Your task to perform on an android device: What time is it in Sydney? Image 0: 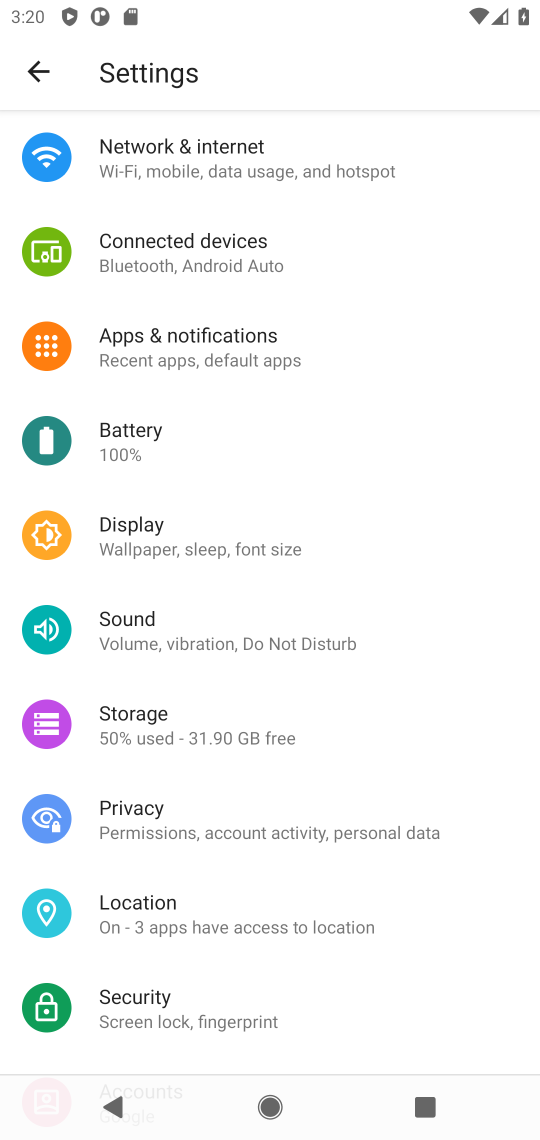
Step 0: press back button
Your task to perform on an android device: What time is it in Sydney? Image 1: 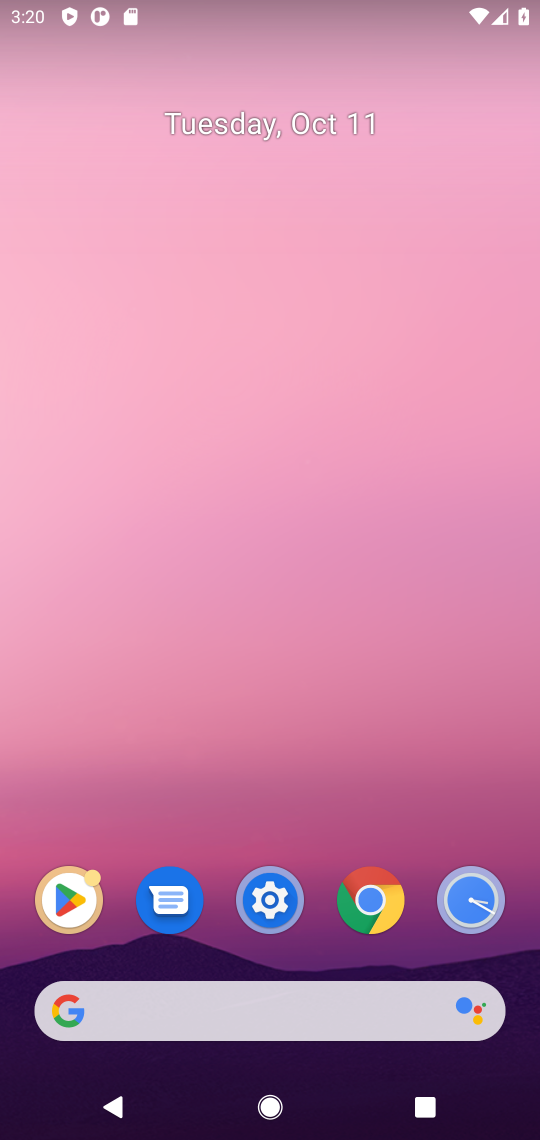
Step 1: click (235, 1011)
Your task to perform on an android device: What time is it in Sydney? Image 2: 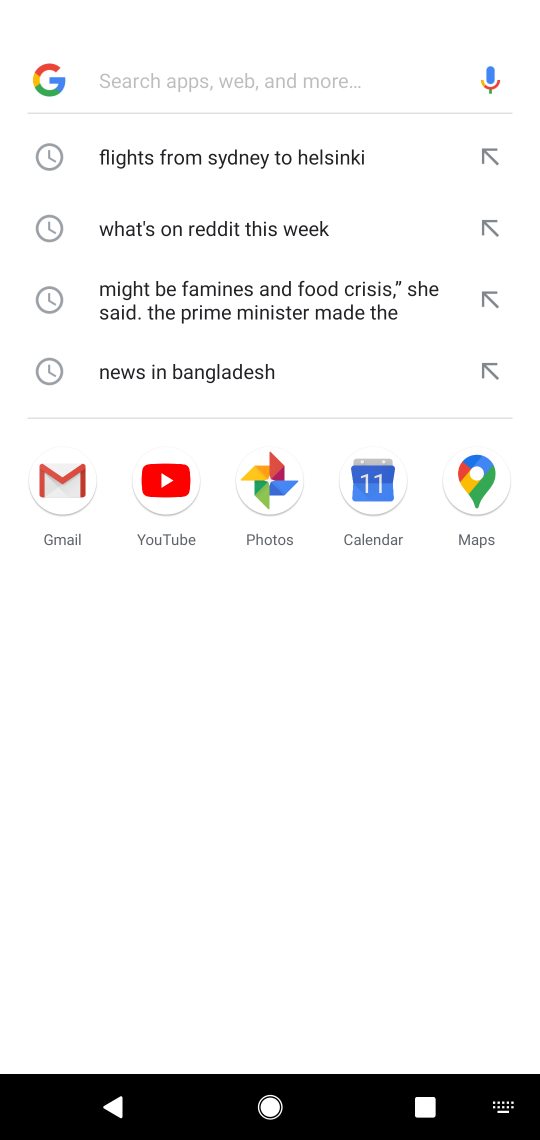
Step 2: type "What time is it in Sydney?"
Your task to perform on an android device: What time is it in Sydney? Image 3: 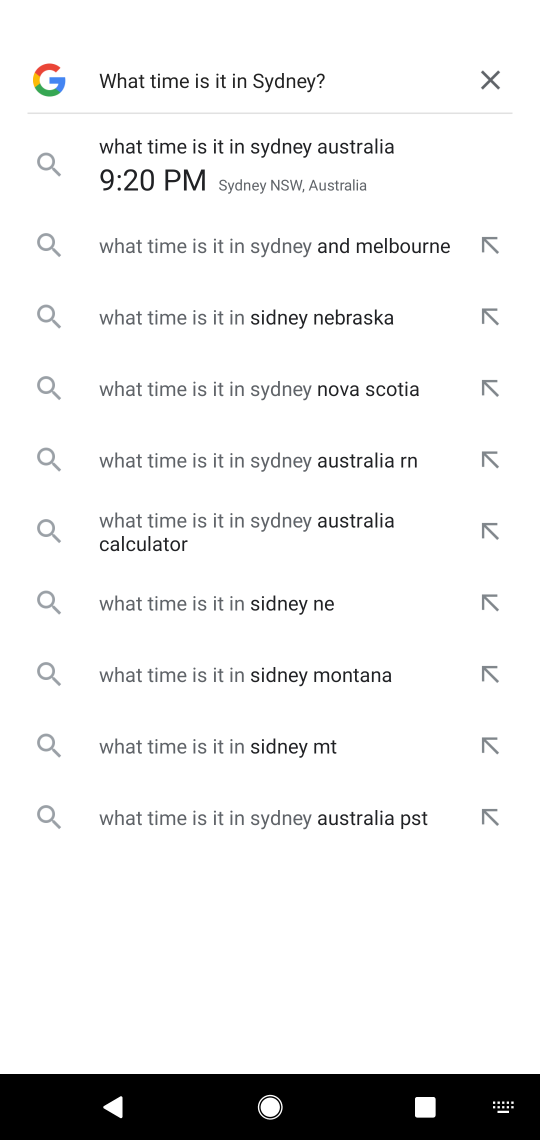
Step 3: type ""
Your task to perform on an android device: What time is it in Sydney? Image 4: 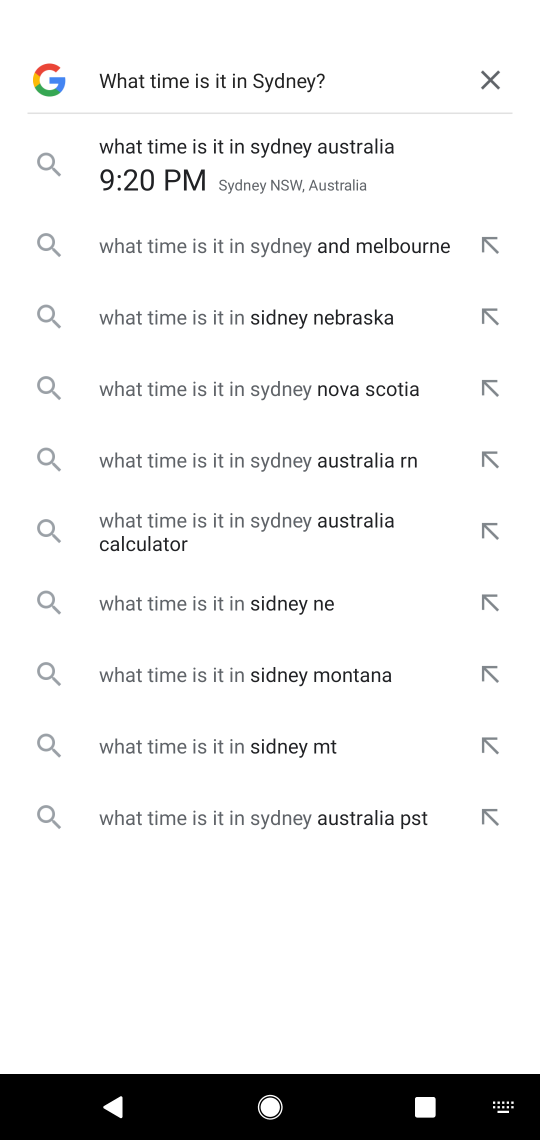
Step 4: click (311, 135)
Your task to perform on an android device: What time is it in Sydney? Image 5: 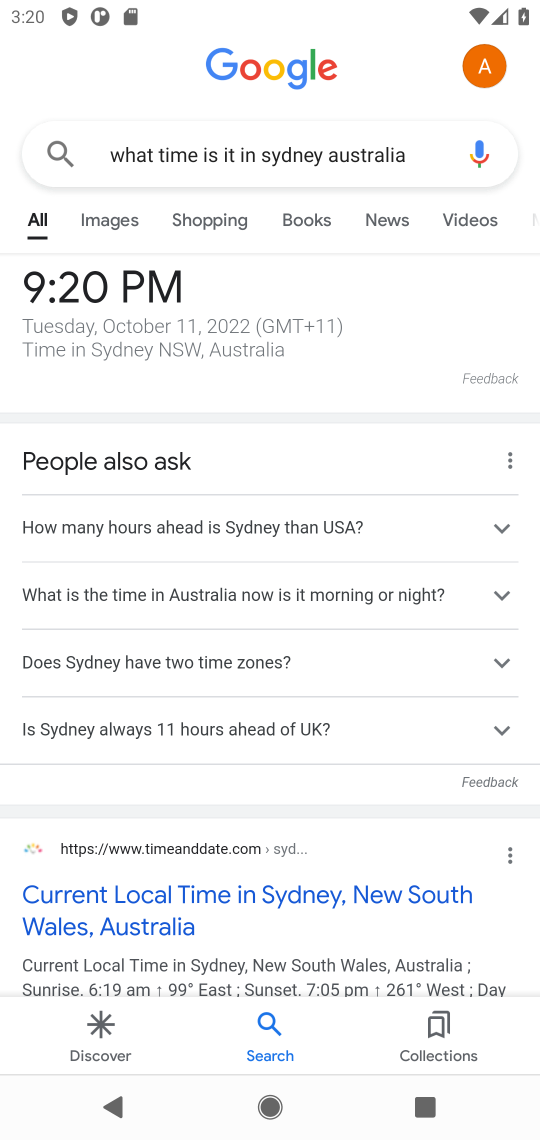
Step 5: click (343, 633)
Your task to perform on an android device: What time is it in Sydney? Image 6: 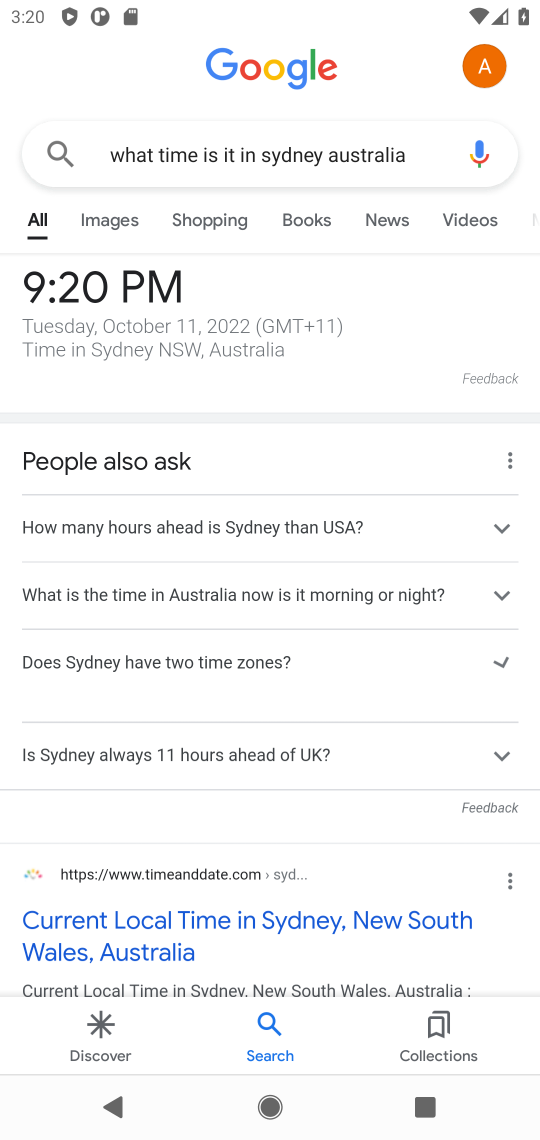
Step 6: click (144, 345)
Your task to perform on an android device: What time is it in Sydney? Image 7: 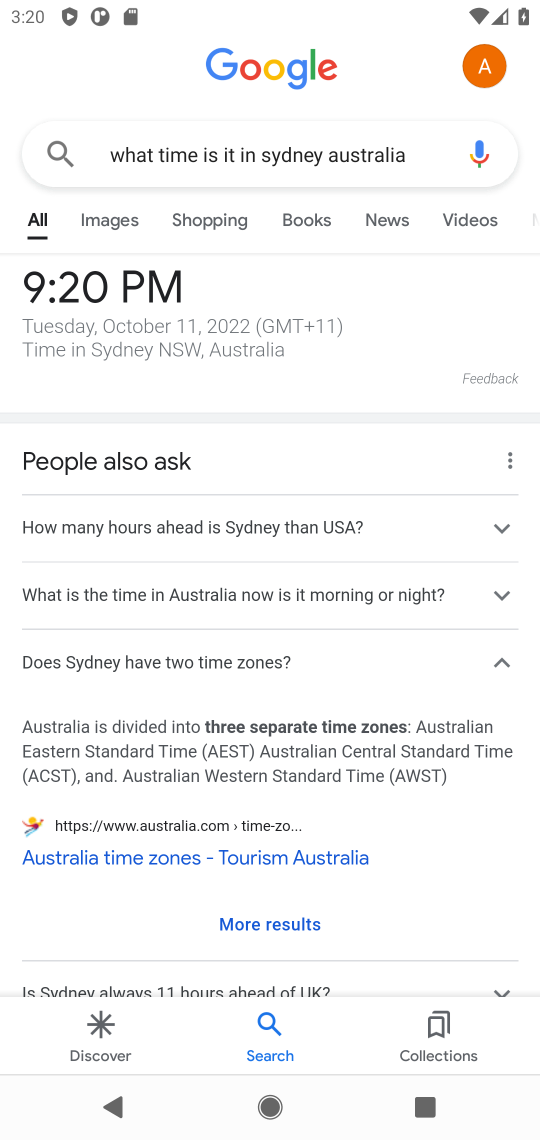
Step 7: drag from (247, 815) to (307, 464)
Your task to perform on an android device: What time is it in Sydney? Image 8: 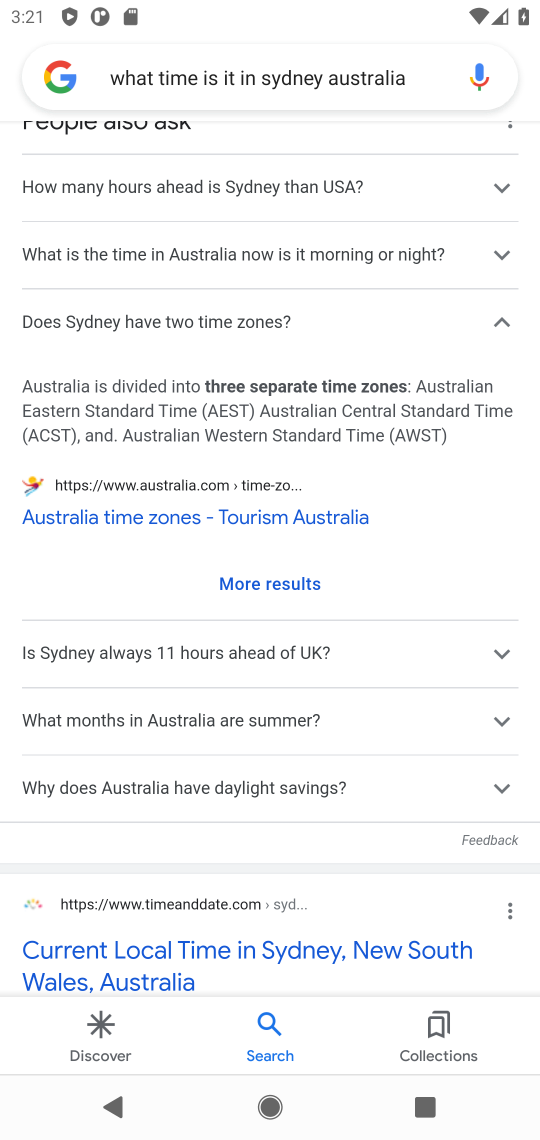
Step 8: click (498, 665)
Your task to perform on an android device: What time is it in Sydney? Image 9: 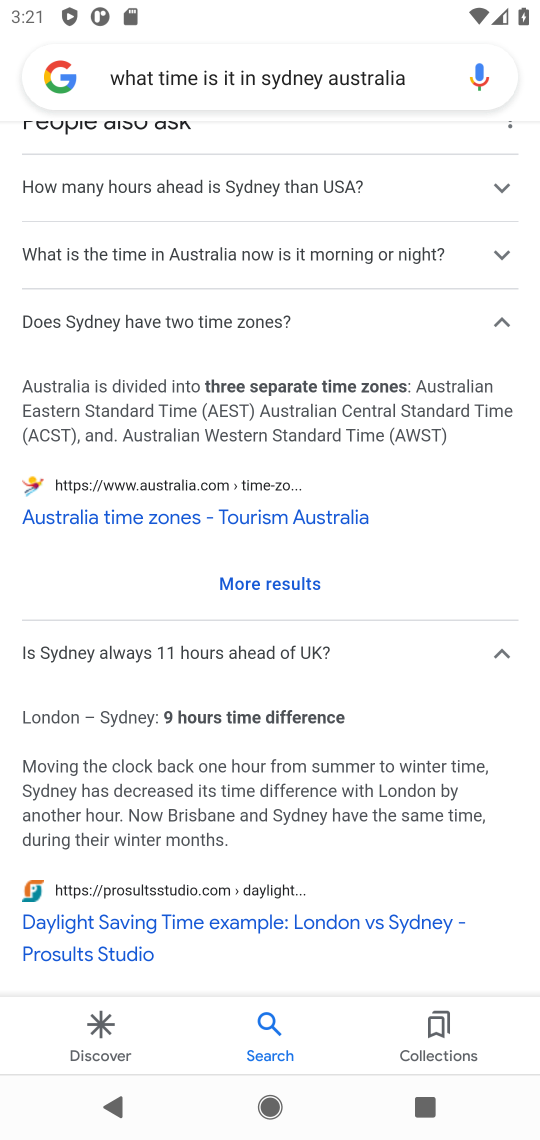
Step 9: click (497, 667)
Your task to perform on an android device: What time is it in Sydney? Image 10: 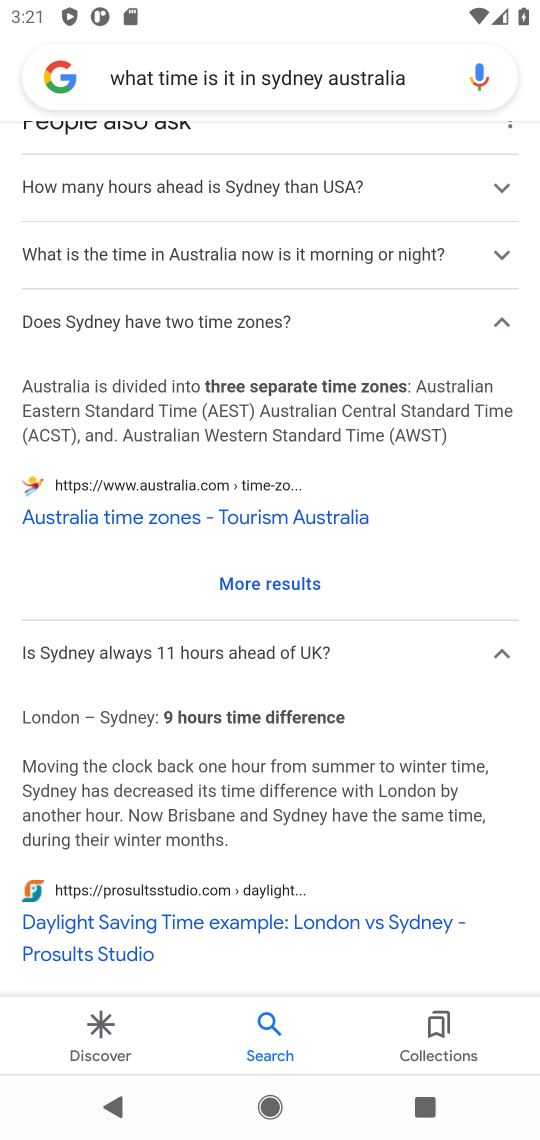
Step 10: click (497, 667)
Your task to perform on an android device: What time is it in Sydney? Image 11: 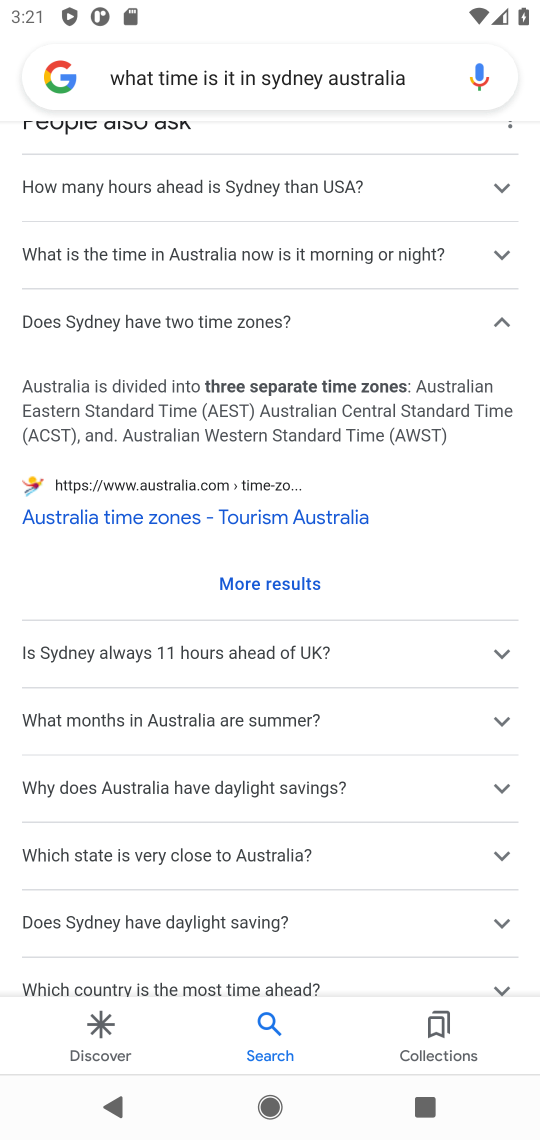
Step 11: click (506, 642)
Your task to perform on an android device: What time is it in Sydney? Image 12: 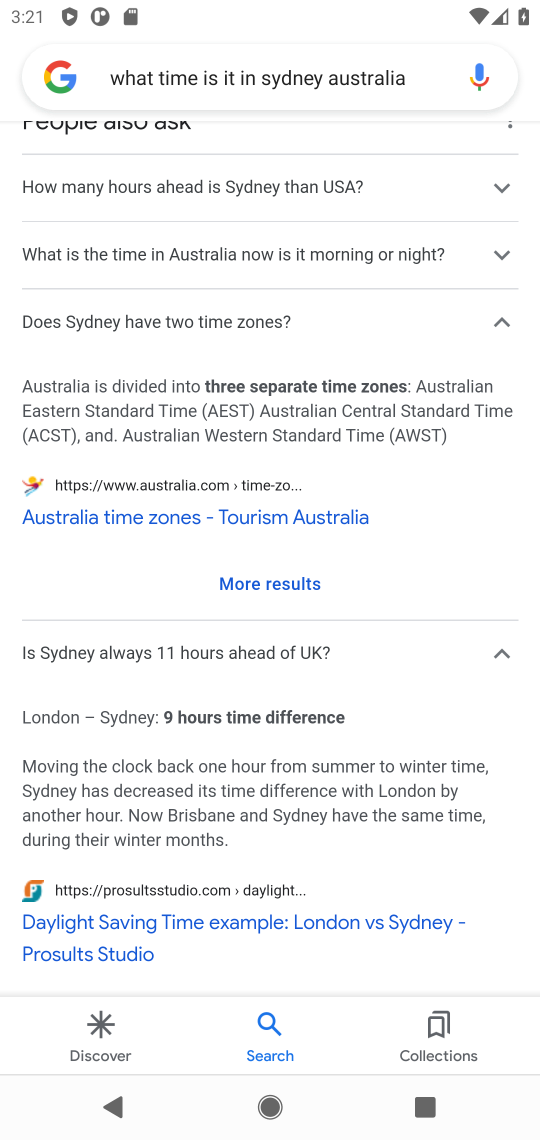
Step 12: click (506, 642)
Your task to perform on an android device: What time is it in Sydney? Image 13: 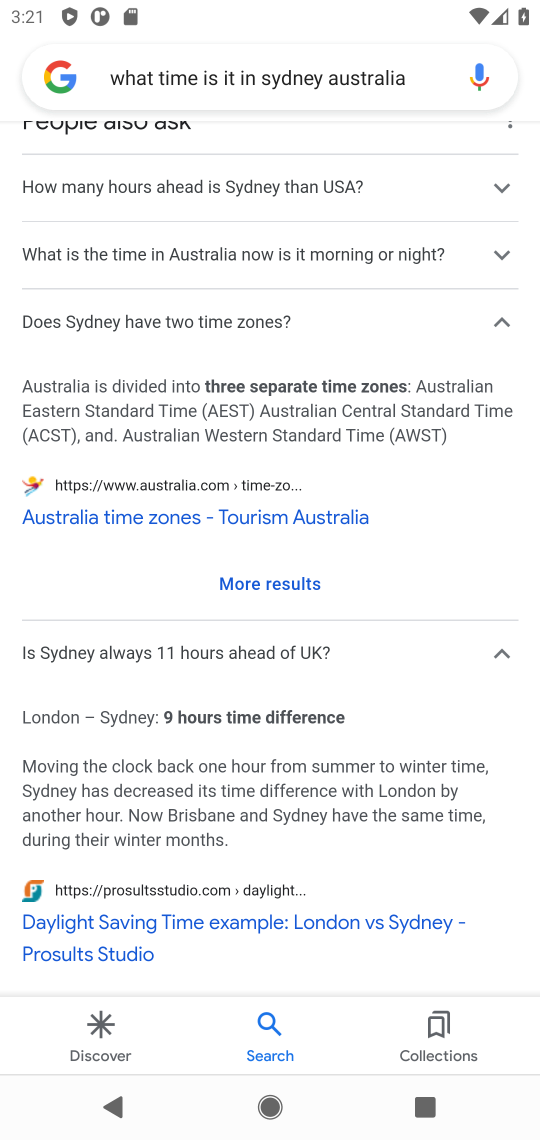
Step 13: click (506, 642)
Your task to perform on an android device: What time is it in Sydney? Image 14: 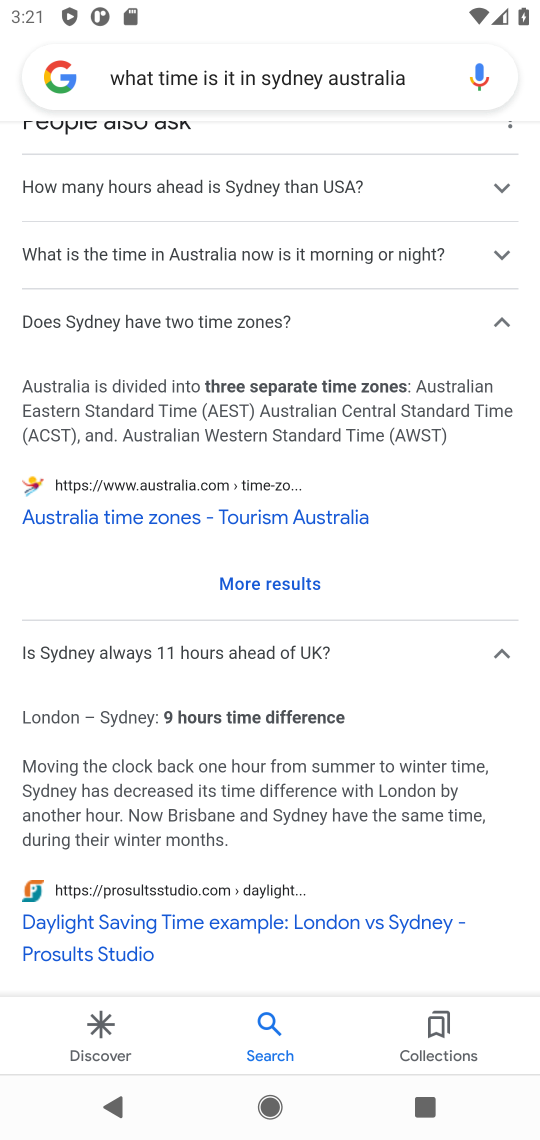
Step 14: click (506, 642)
Your task to perform on an android device: What time is it in Sydney? Image 15: 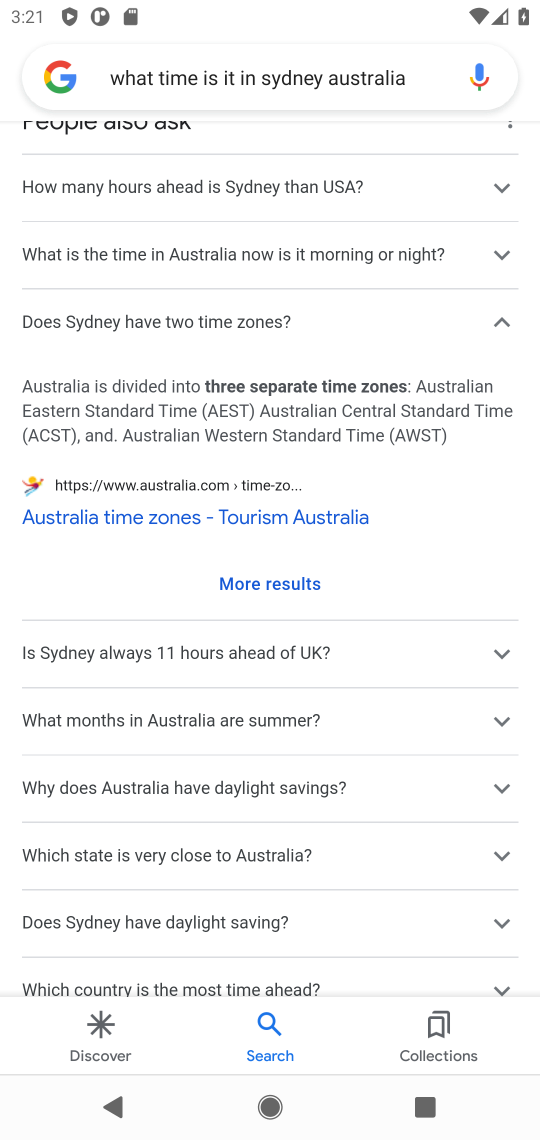
Step 15: click (506, 642)
Your task to perform on an android device: What time is it in Sydney? Image 16: 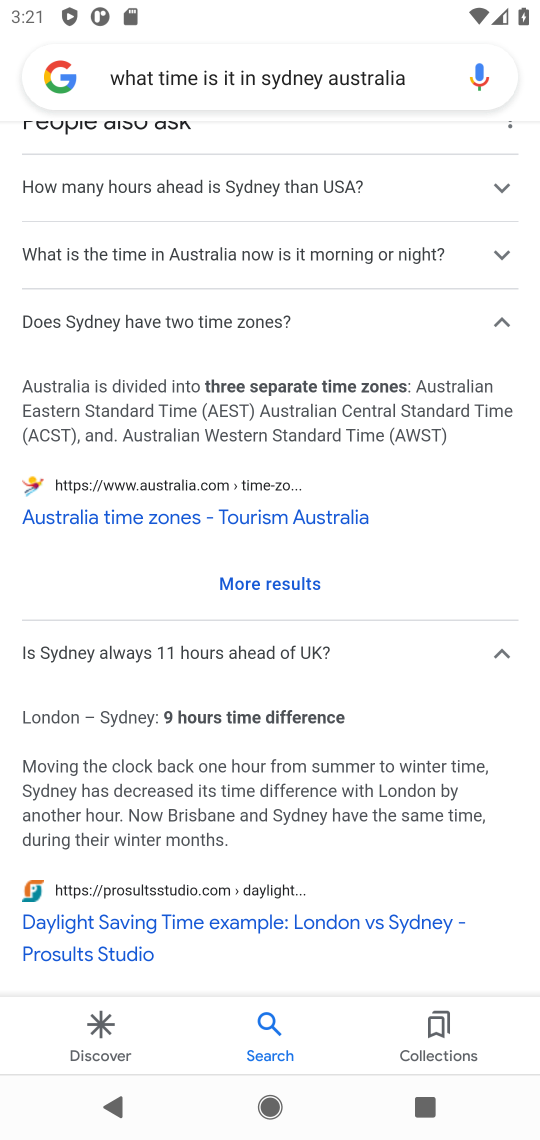
Step 16: click (506, 642)
Your task to perform on an android device: What time is it in Sydney? Image 17: 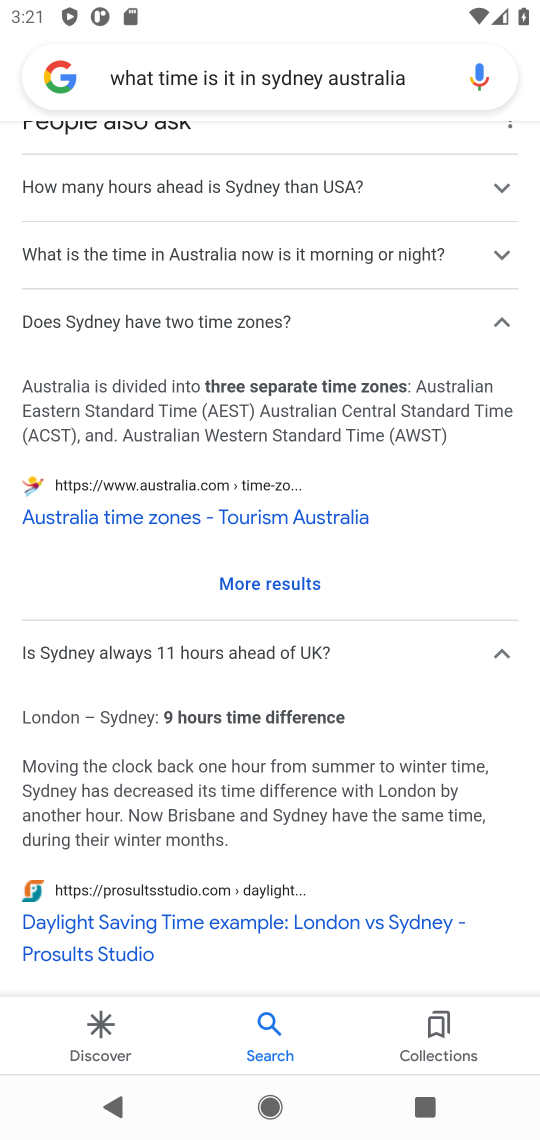
Step 17: click (506, 642)
Your task to perform on an android device: What time is it in Sydney? Image 18: 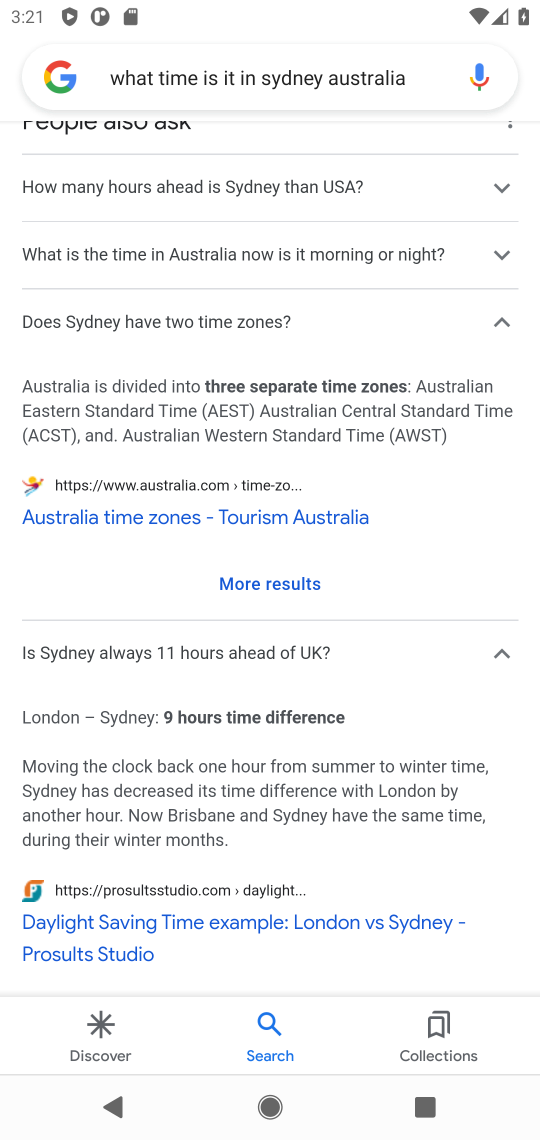
Step 18: click (506, 642)
Your task to perform on an android device: What time is it in Sydney? Image 19: 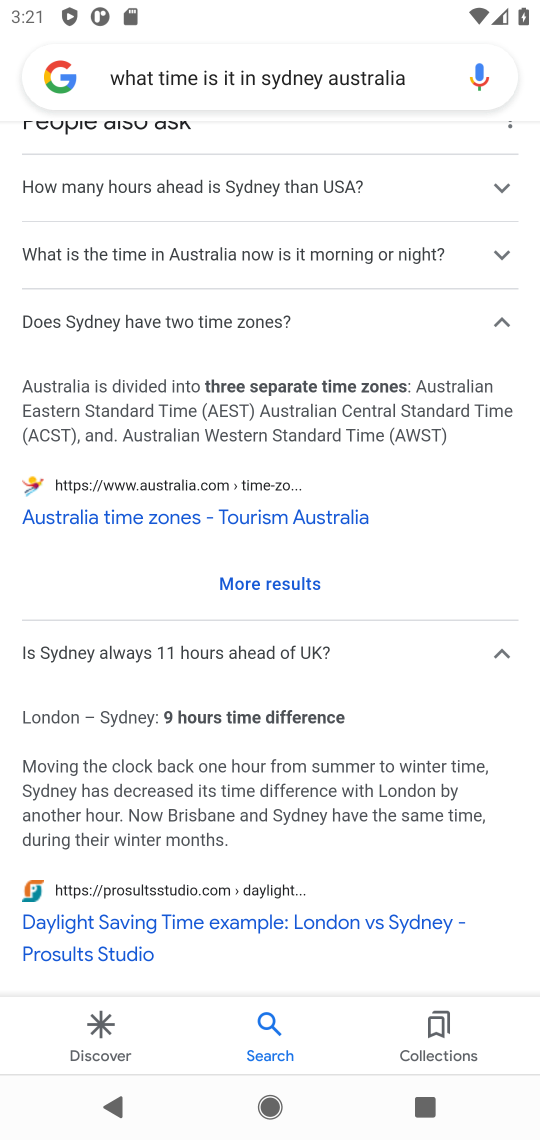
Step 19: click (506, 642)
Your task to perform on an android device: What time is it in Sydney? Image 20: 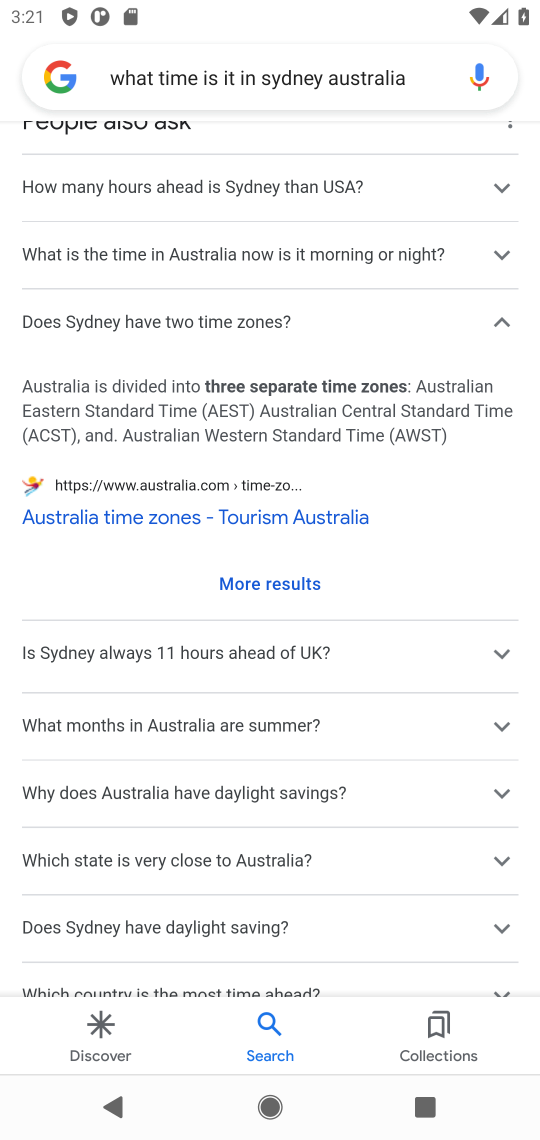
Step 20: click (506, 642)
Your task to perform on an android device: What time is it in Sydney? Image 21: 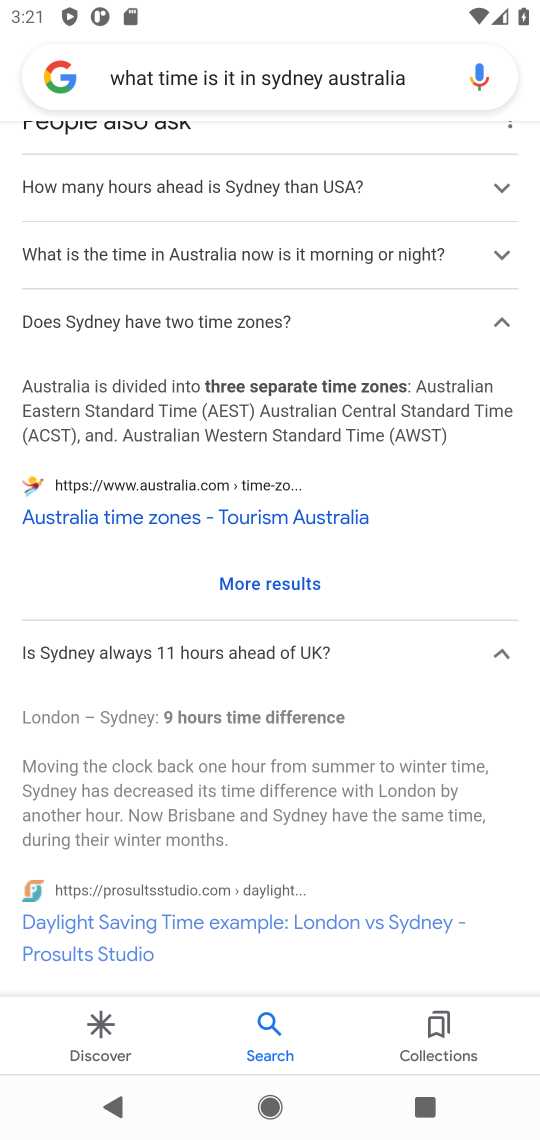
Step 21: click (506, 642)
Your task to perform on an android device: What time is it in Sydney? Image 22: 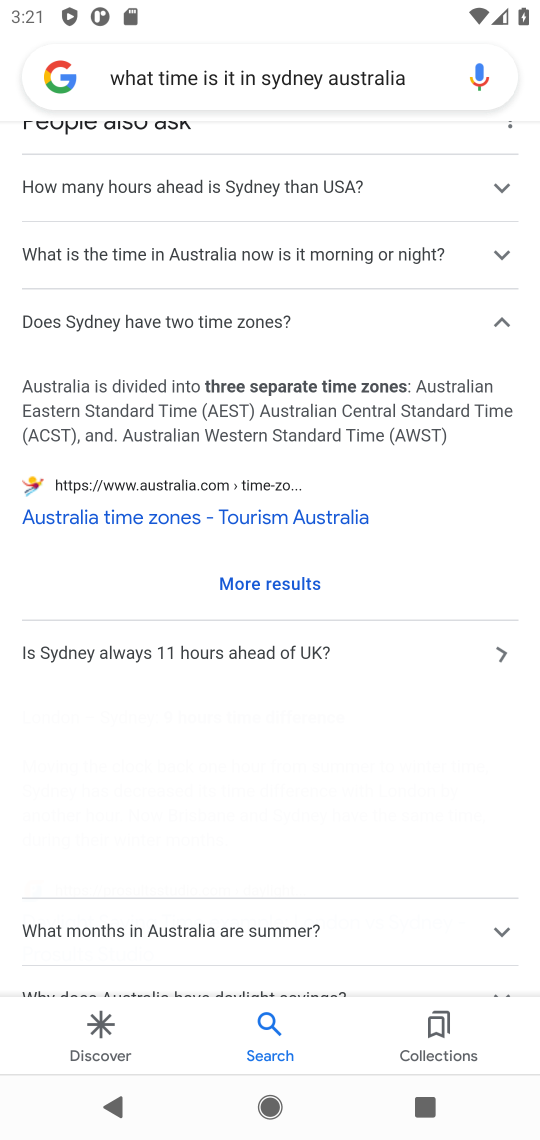
Step 22: click (506, 642)
Your task to perform on an android device: What time is it in Sydney? Image 23: 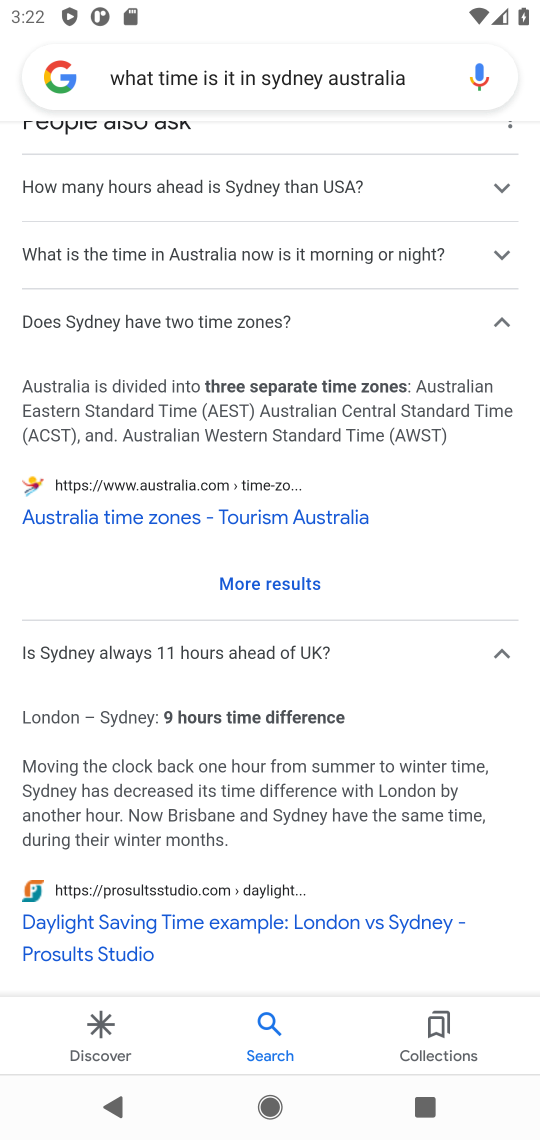
Step 23: click (506, 642)
Your task to perform on an android device: What time is it in Sydney? Image 24: 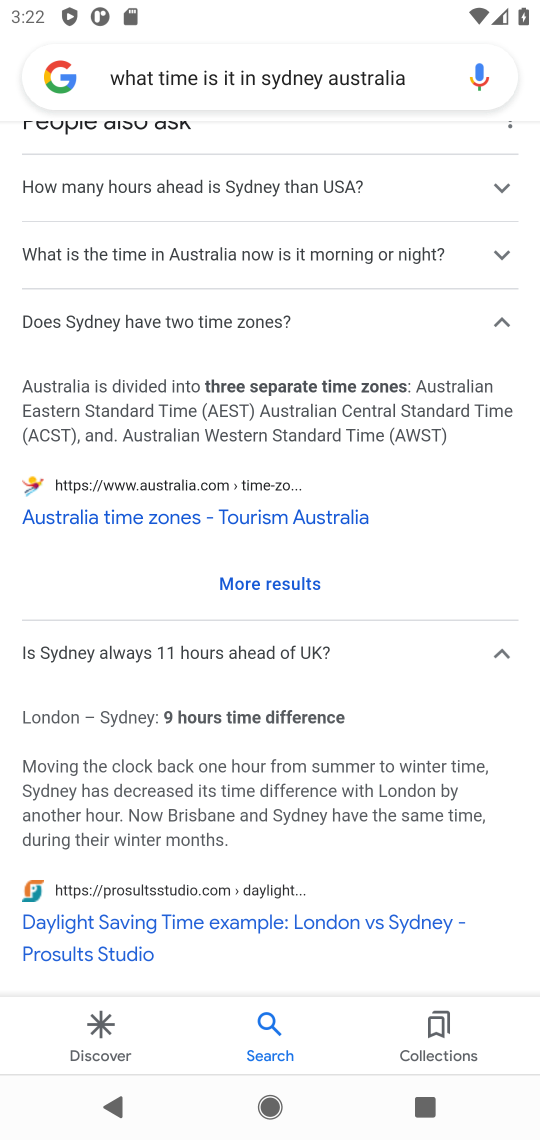
Step 24: click (506, 642)
Your task to perform on an android device: What time is it in Sydney? Image 25: 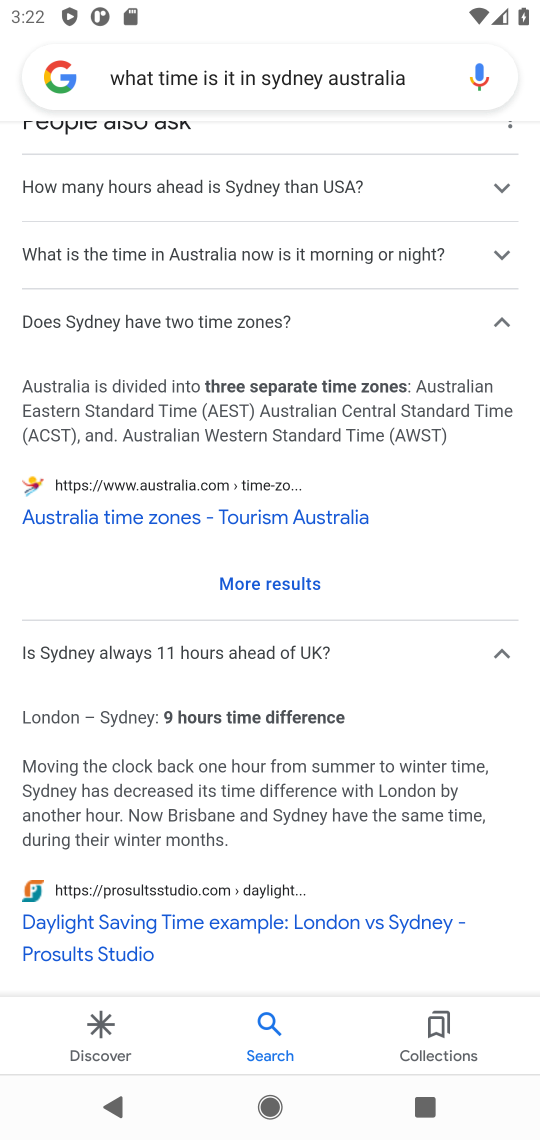
Step 25: click (506, 642)
Your task to perform on an android device: What time is it in Sydney? Image 26: 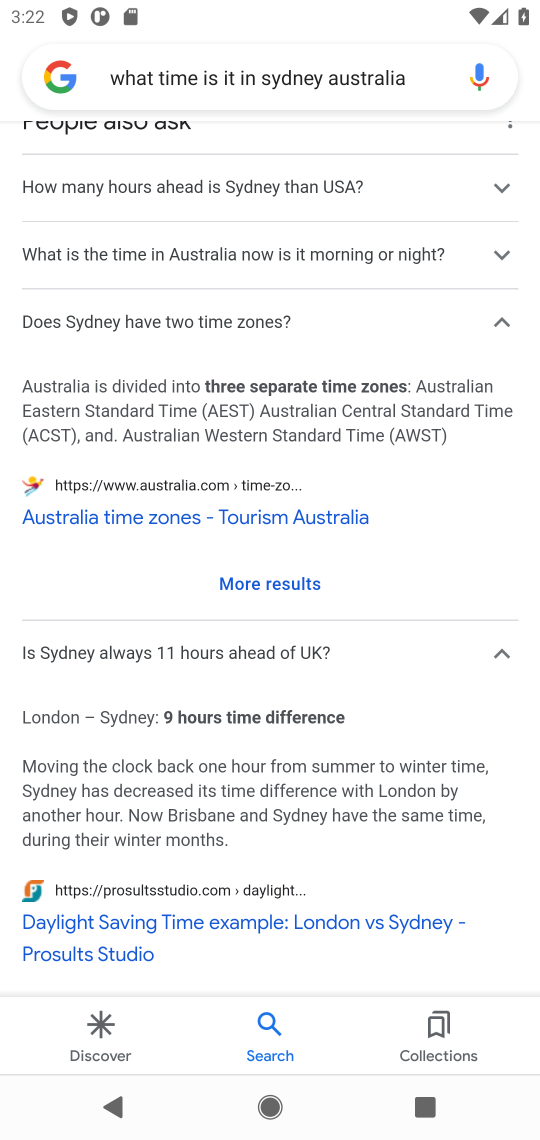
Step 26: click (506, 642)
Your task to perform on an android device: What time is it in Sydney? Image 27: 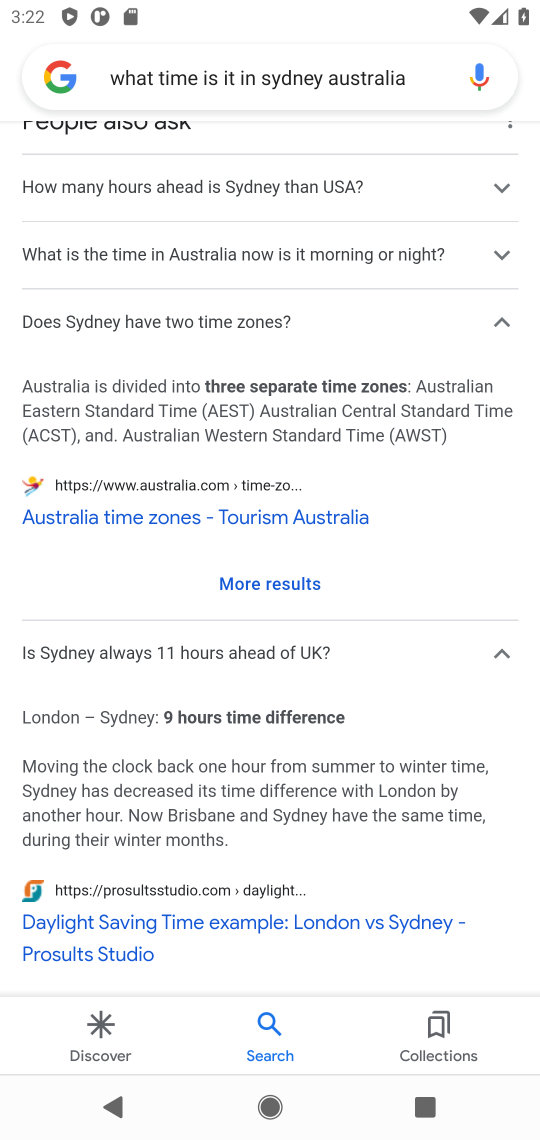
Step 27: click (506, 642)
Your task to perform on an android device: What time is it in Sydney? Image 28: 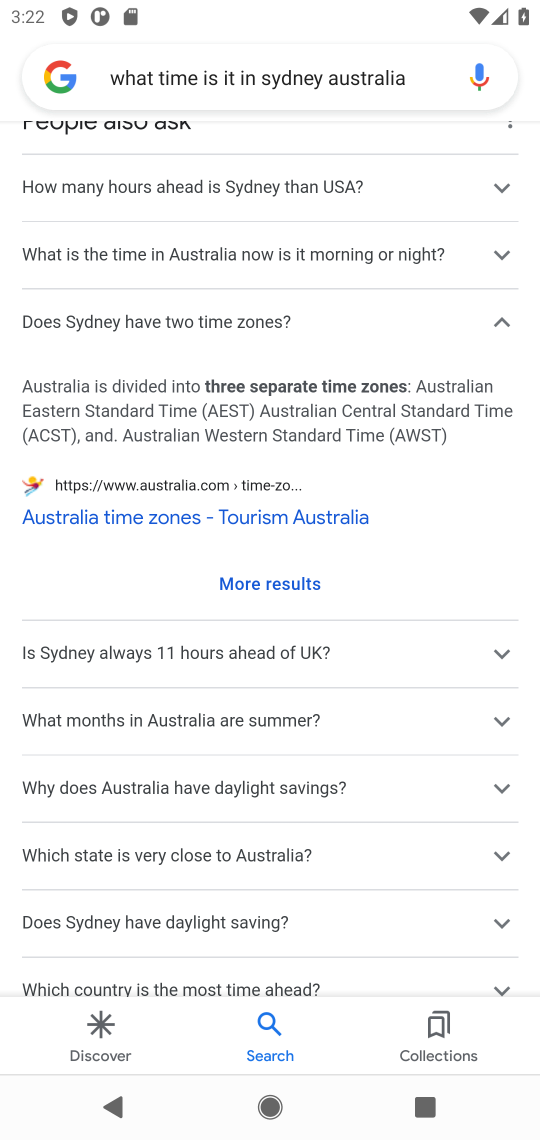
Step 28: click (511, 640)
Your task to perform on an android device: What time is it in Sydney? Image 29: 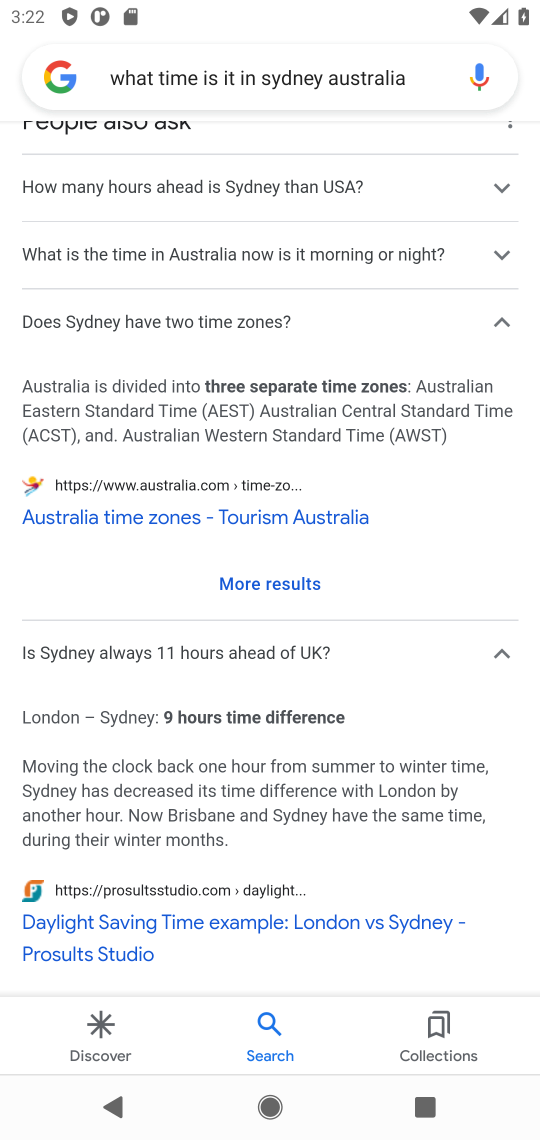
Step 29: click (511, 640)
Your task to perform on an android device: What time is it in Sydney? Image 30: 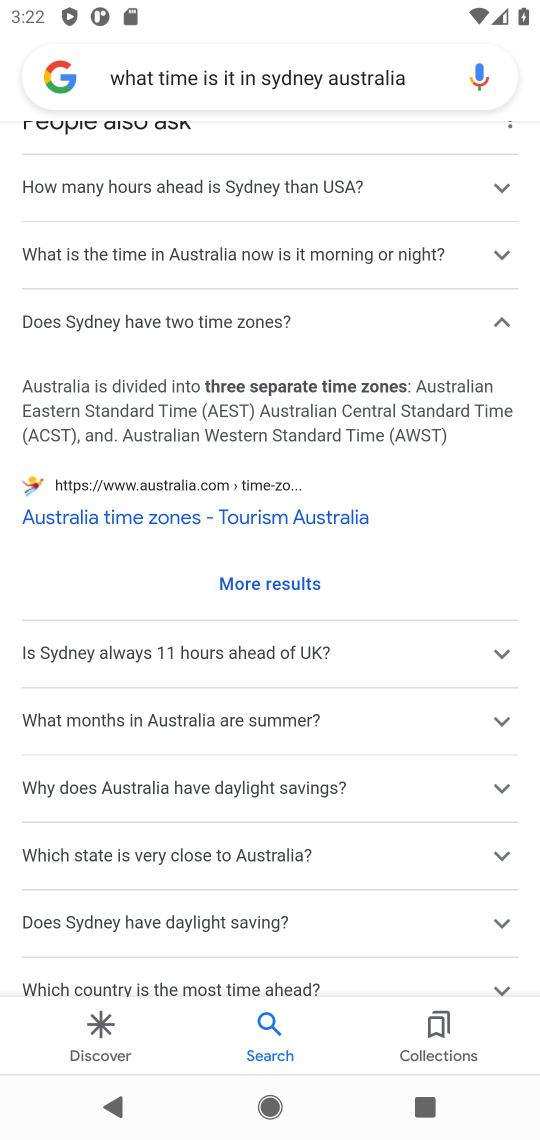
Step 30: click (511, 640)
Your task to perform on an android device: What time is it in Sydney? Image 31: 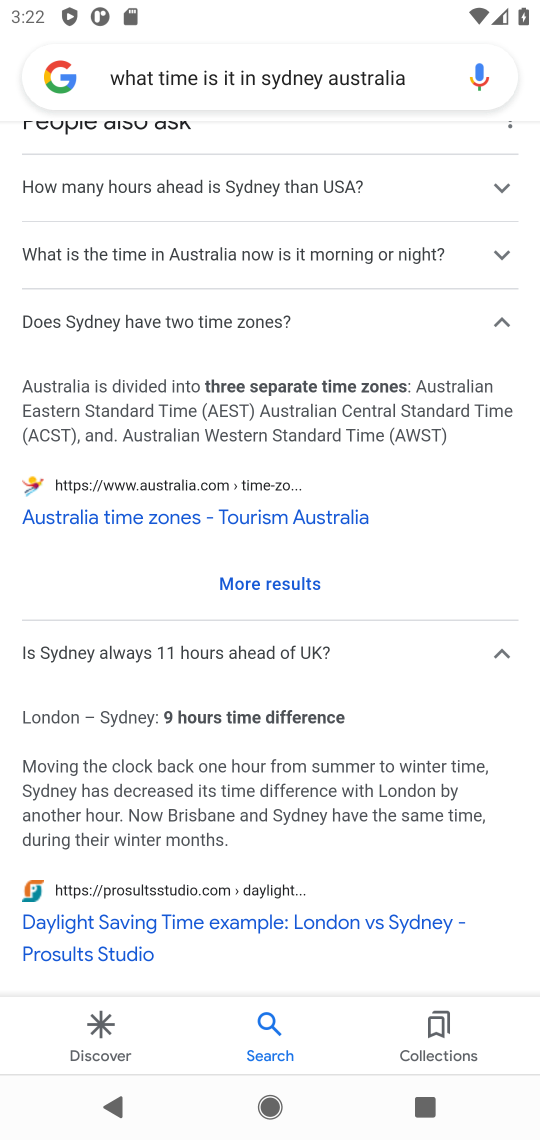
Step 31: click (511, 640)
Your task to perform on an android device: What time is it in Sydney? Image 32: 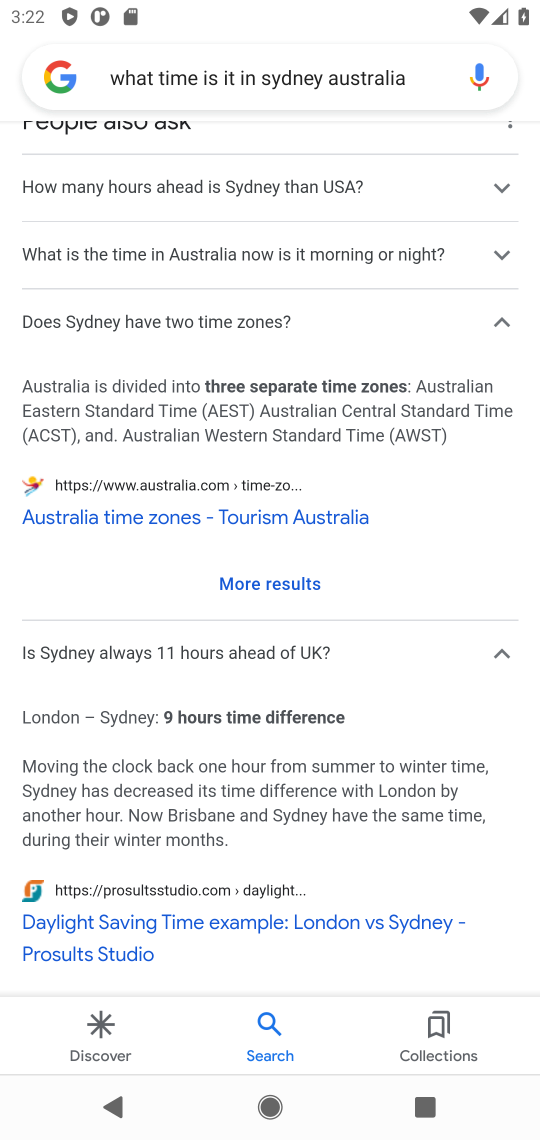
Step 32: click (511, 640)
Your task to perform on an android device: What time is it in Sydney? Image 33: 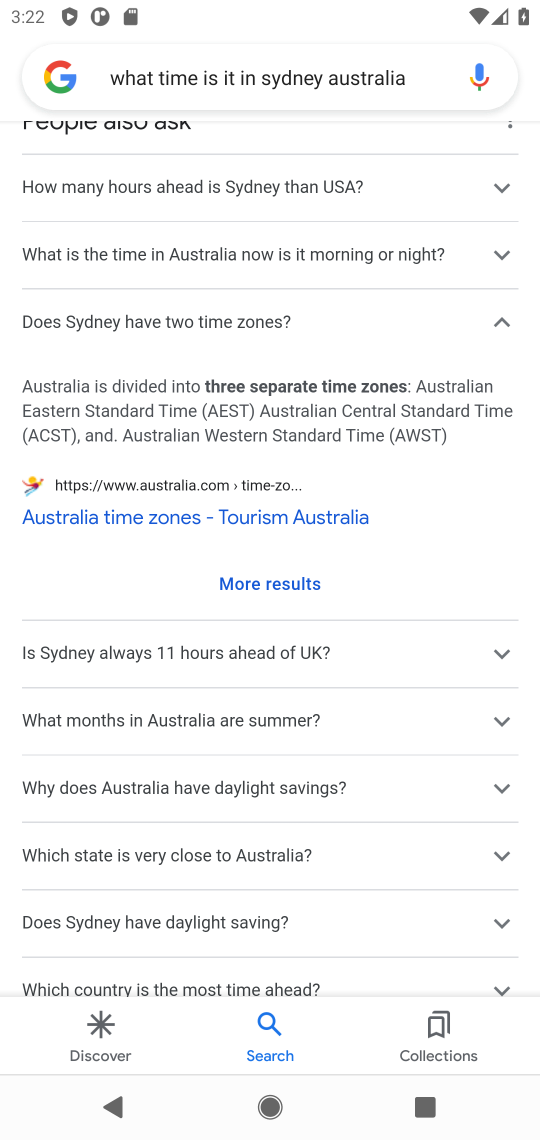
Step 33: click (511, 640)
Your task to perform on an android device: What time is it in Sydney? Image 34: 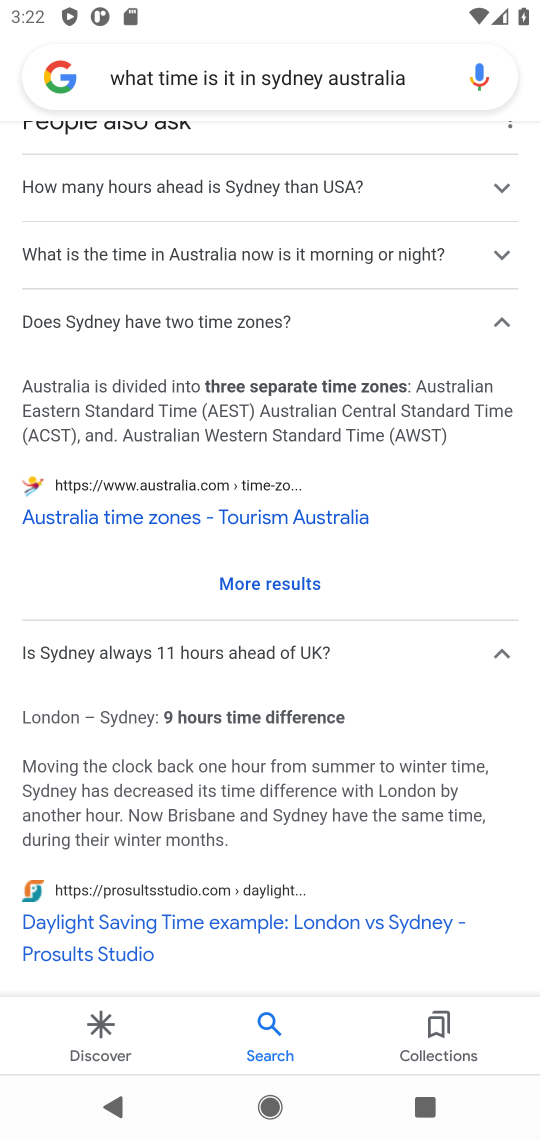
Step 34: click (511, 640)
Your task to perform on an android device: What time is it in Sydney? Image 35: 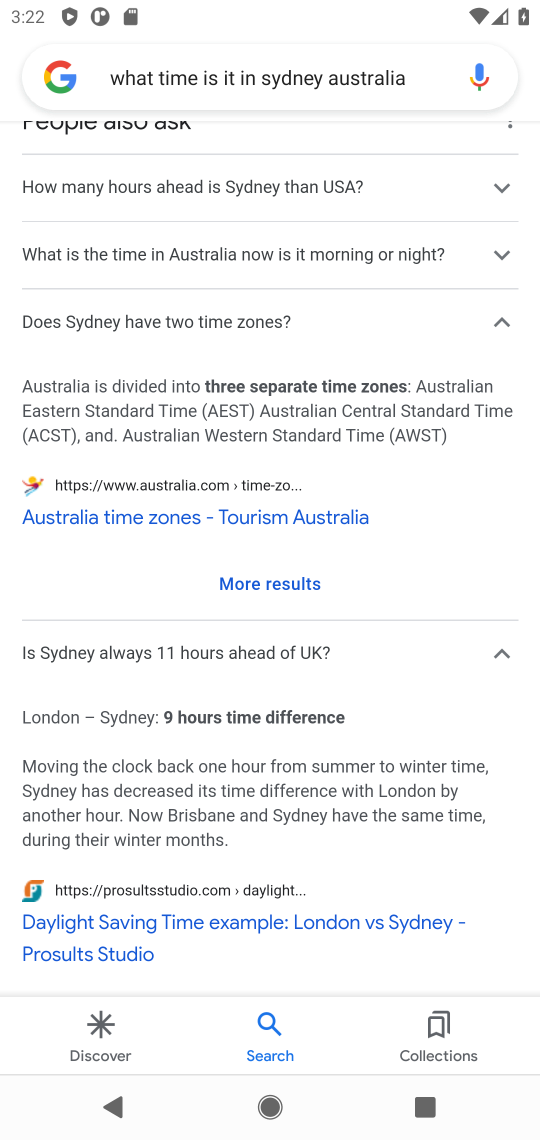
Step 35: click (511, 640)
Your task to perform on an android device: What time is it in Sydney? Image 36: 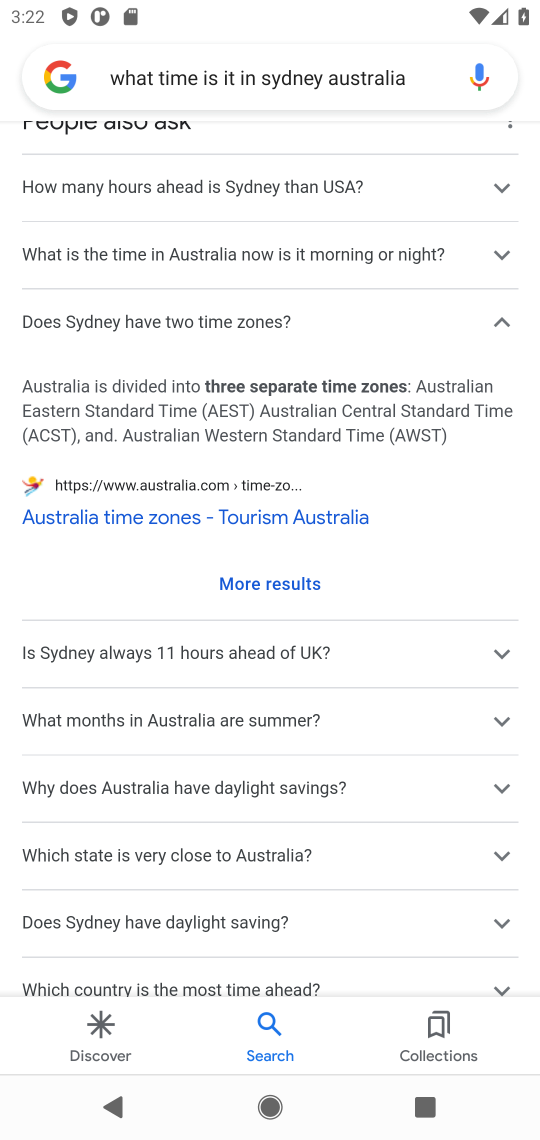
Step 36: click (511, 640)
Your task to perform on an android device: What time is it in Sydney? Image 37: 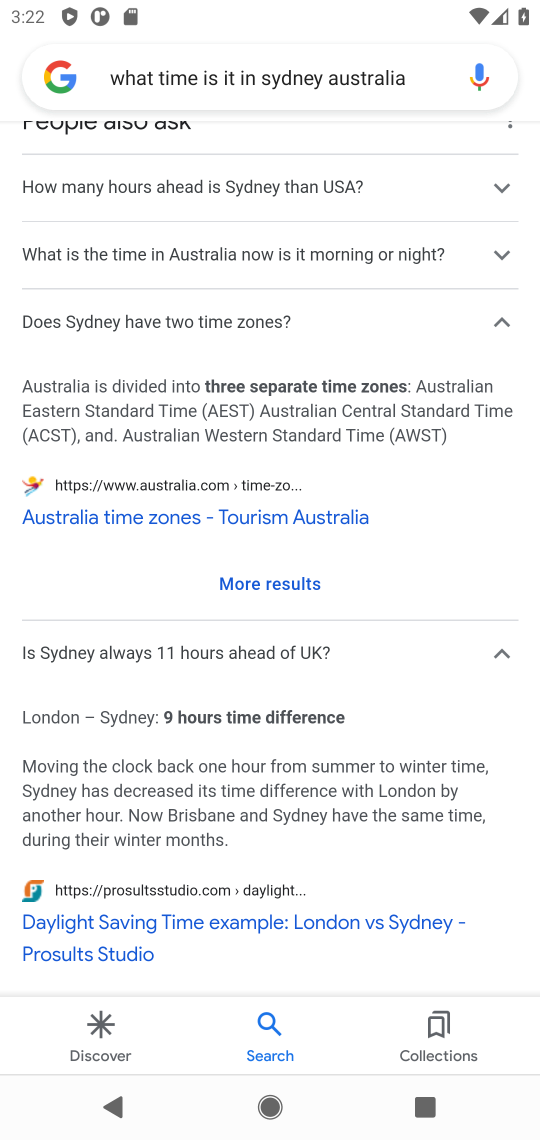
Step 37: click (511, 640)
Your task to perform on an android device: What time is it in Sydney? Image 38: 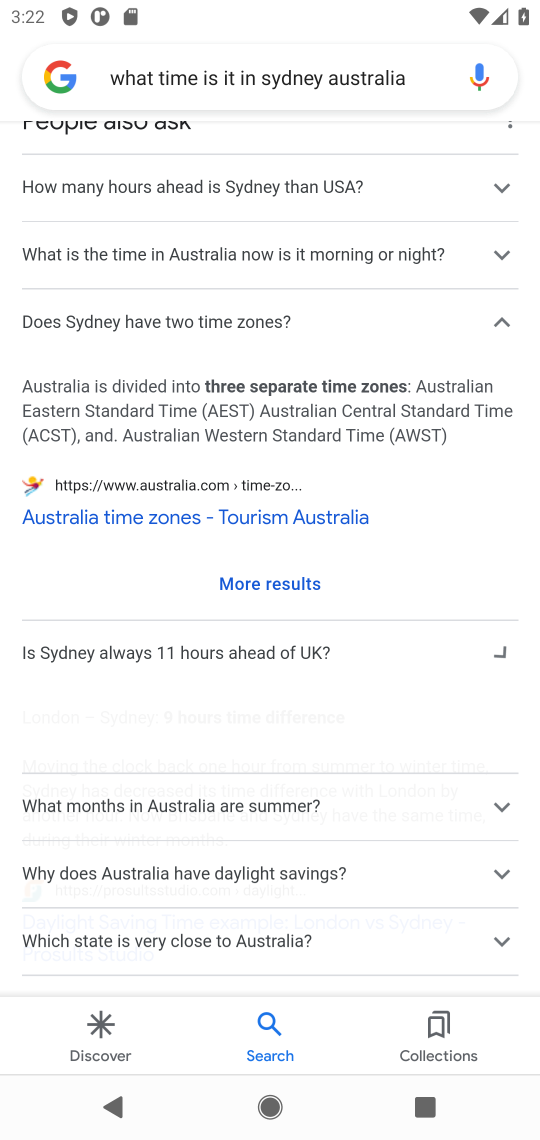
Step 38: click (511, 640)
Your task to perform on an android device: What time is it in Sydney? Image 39: 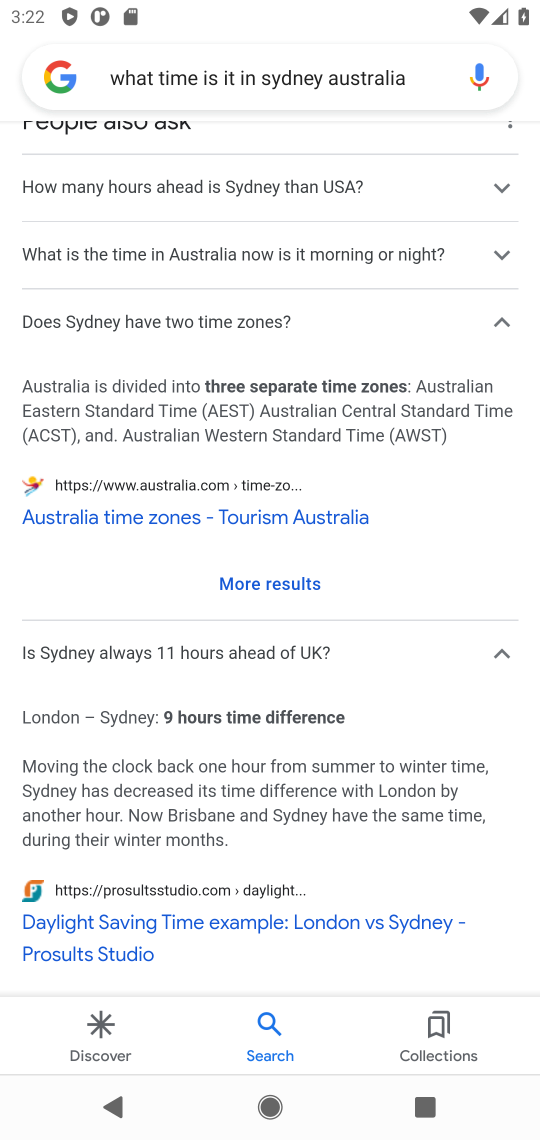
Step 39: click (511, 640)
Your task to perform on an android device: What time is it in Sydney? Image 40: 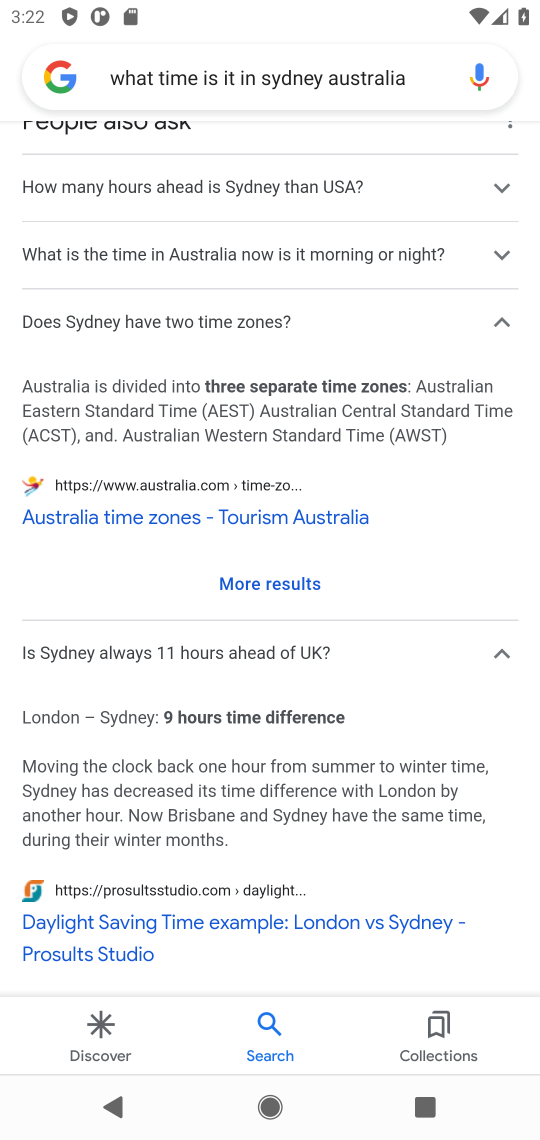
Step 40: click (511, 640)
Your task to perform on an android device: What time is it in Sydney? Image 41: 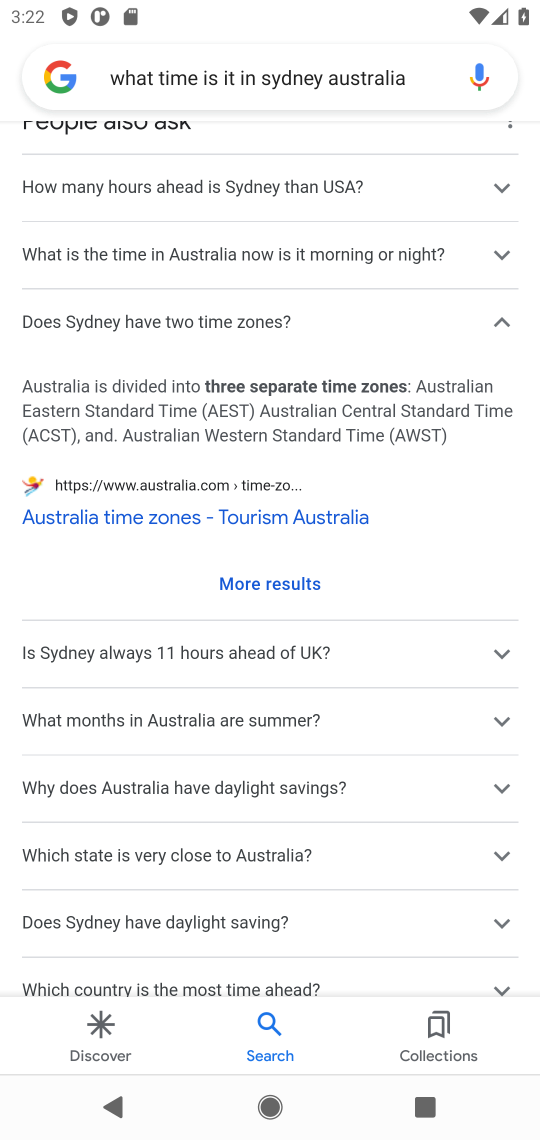
Step 41: click (511, 640)
Your task to perform on an android device: What time is it in Sydney? Image 42: 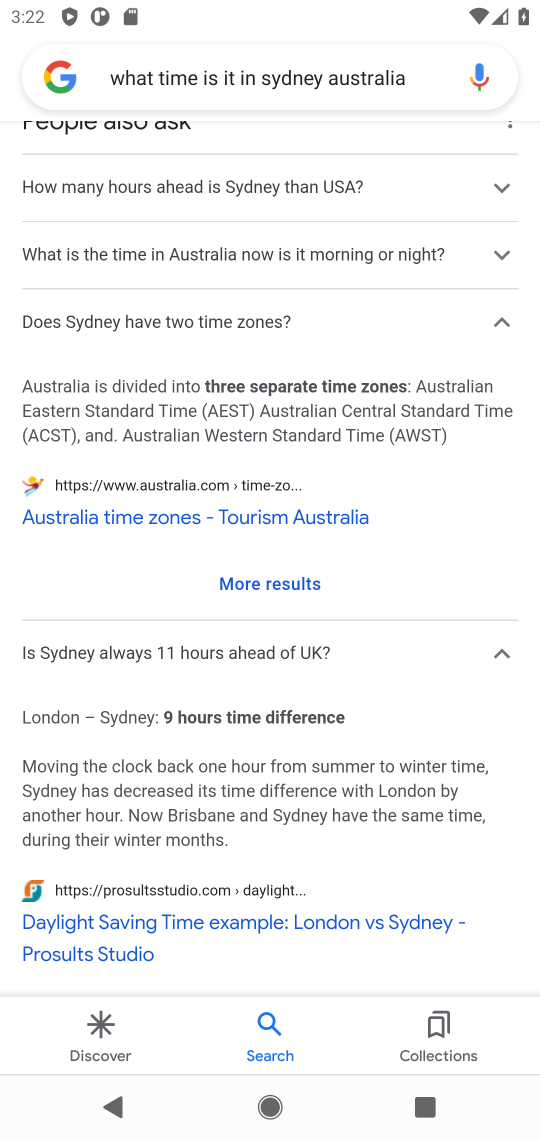
Step 42: click (511, 640)
Your task to perform on an android device: What time is it in Sydney? Image 43: 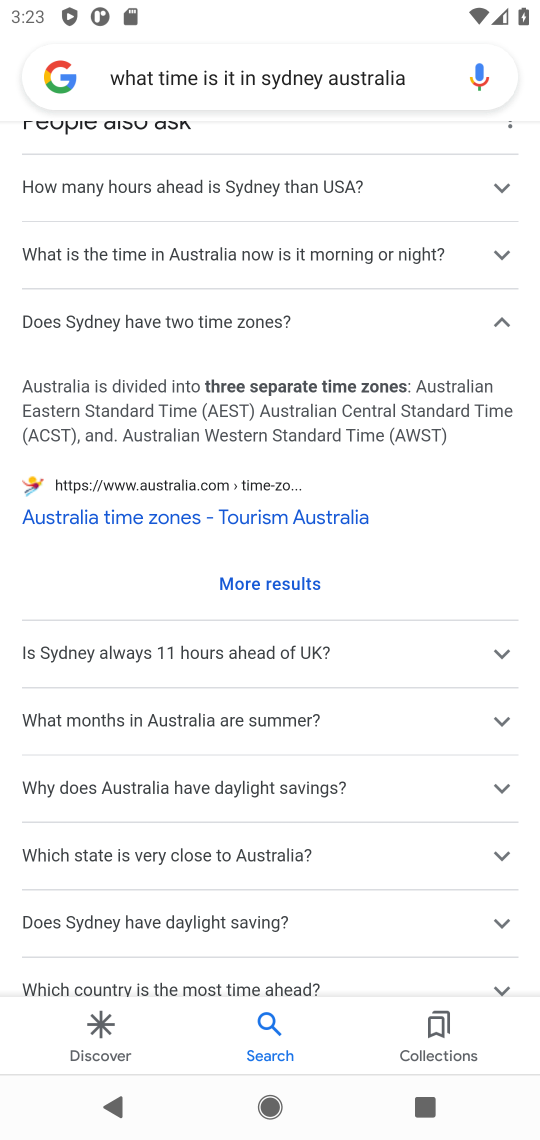
Step 43: click (511, 640)
Your task to perform on an android device: What time is it in Sydney? Image 44: 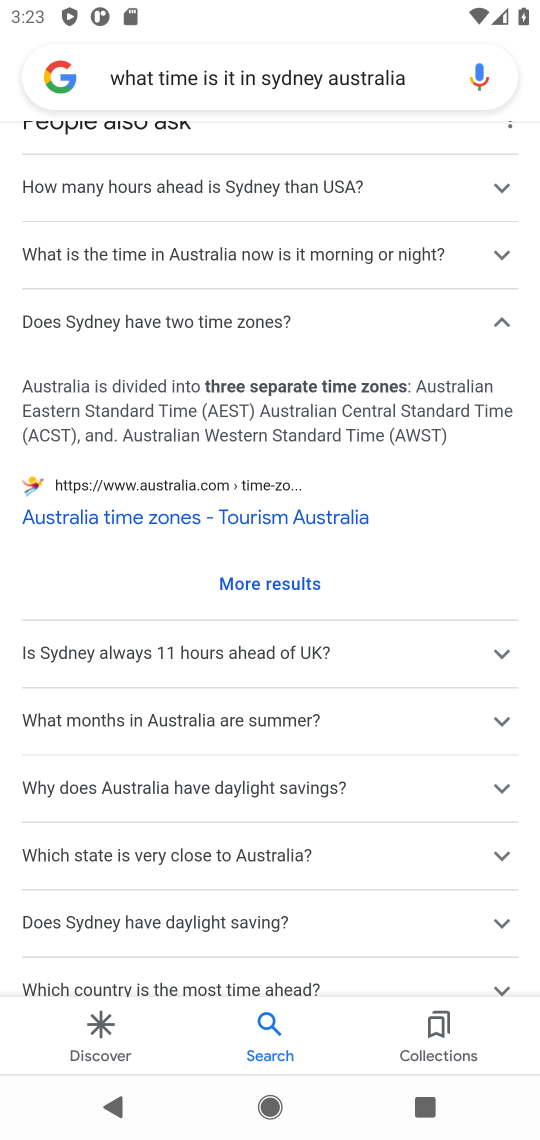
Step 44: click (511, 640)
Your task to perform on an android device: What time is it in Sydney? Image 45: 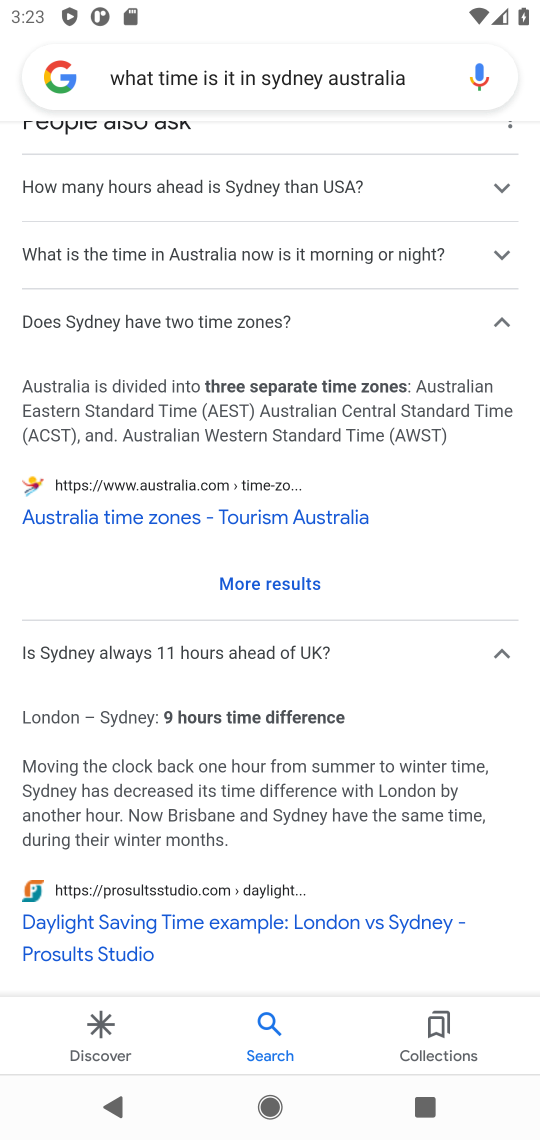
Step 45: click (497, 653)
Your task to perform on an android device: What time is it in Sydney? Image 46: 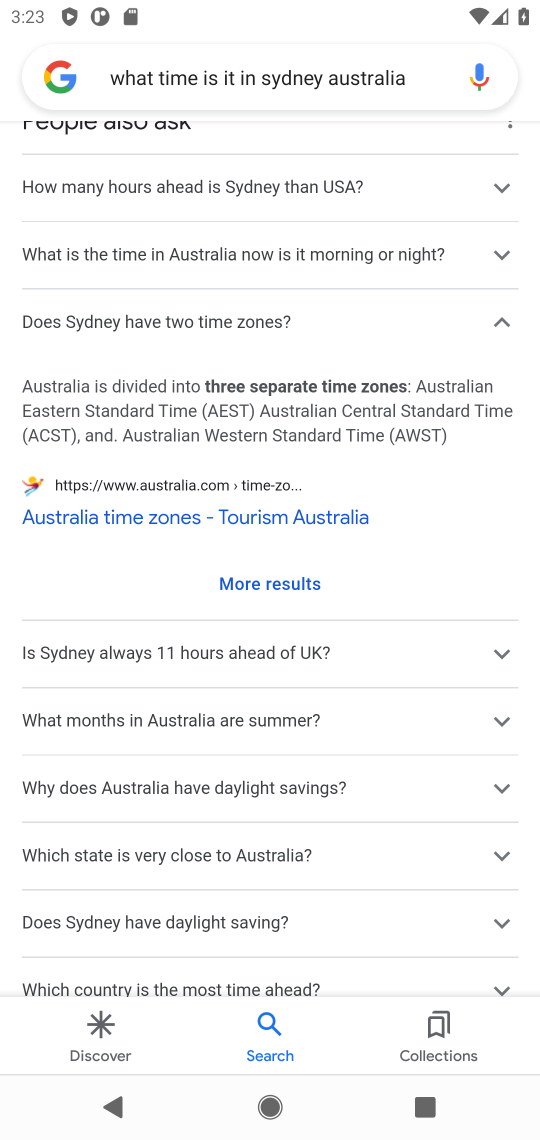
Step 46: click (497, 653)
Your task to perform on an android device: What time is it in Sydney? Image 47: 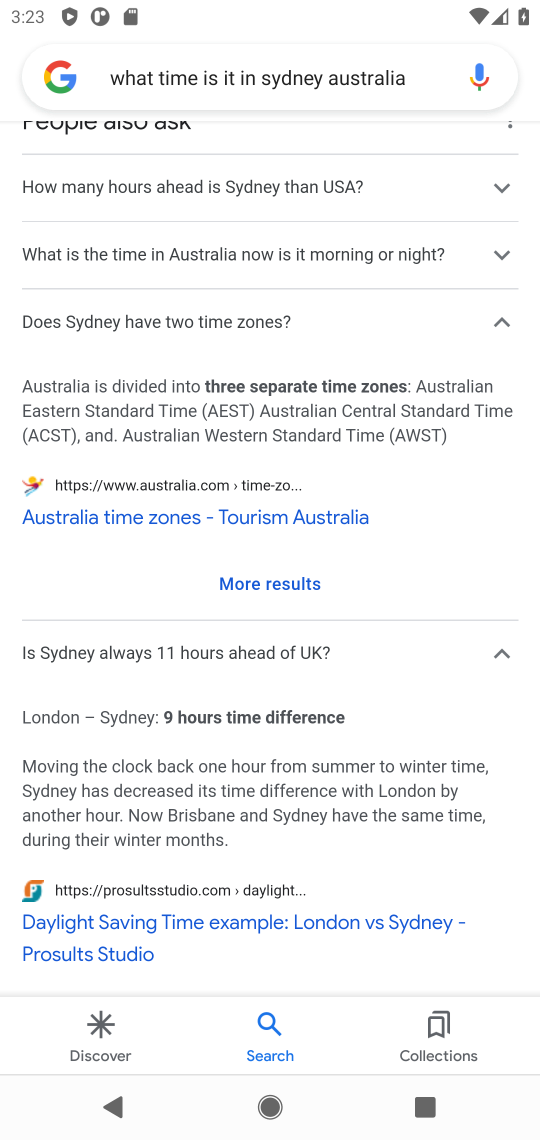
Step 47: click (497, 653)
Your task to perform on an android device: What time is it in Sydney? Image 48: 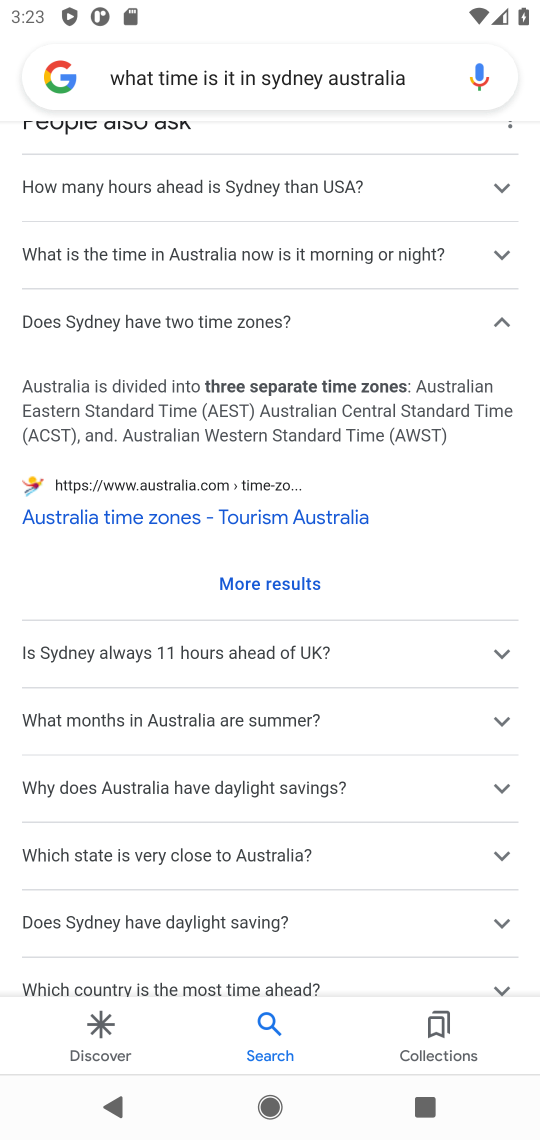
Step 48: task complete